Your task to perform on an android device: turn off smart reply in the gmail app Image 0: 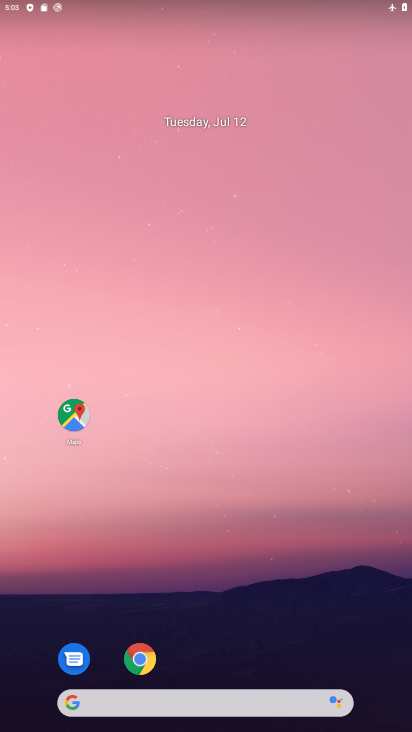
Step 0: drag from (384, 674) to (288, 140)
Your task to perform on an android device: turn off smart reply in the gmail app Image 1: 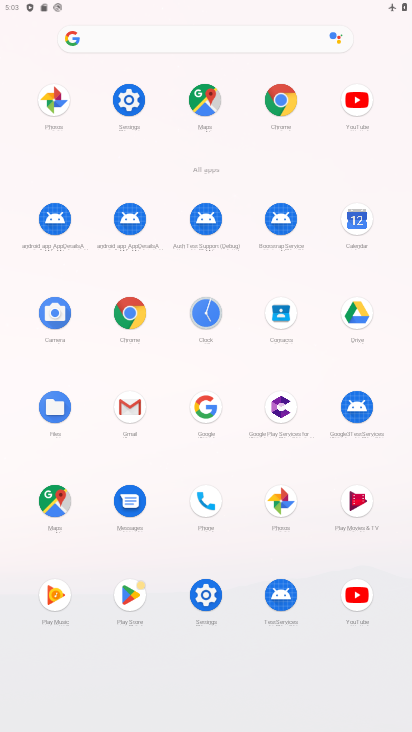
Step 1: click (129, 404)
Your task to perform on an android device: turn off smart reply in the gmail app Image 2: 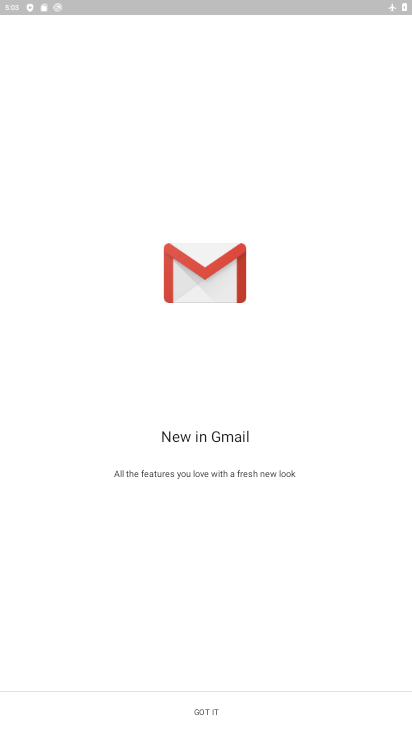
Step 2: click (202, 712)
Your task to perform on an android device: turn off smart reply in the gmail app Image 3: 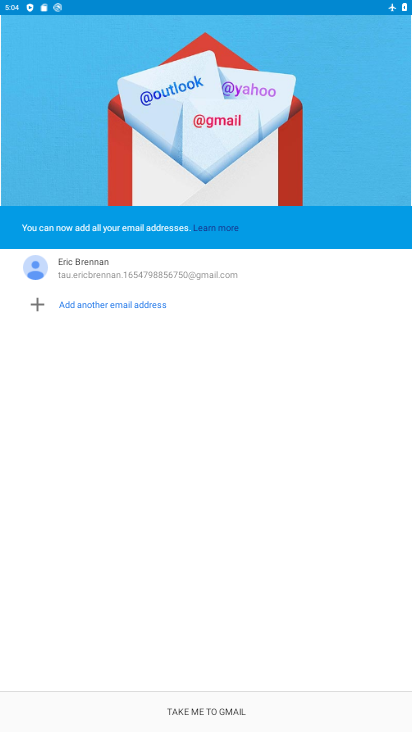
Step 3: click (215, 706)
Your task to perform on an android device: turn off smart reply in the gmail app Image 4: 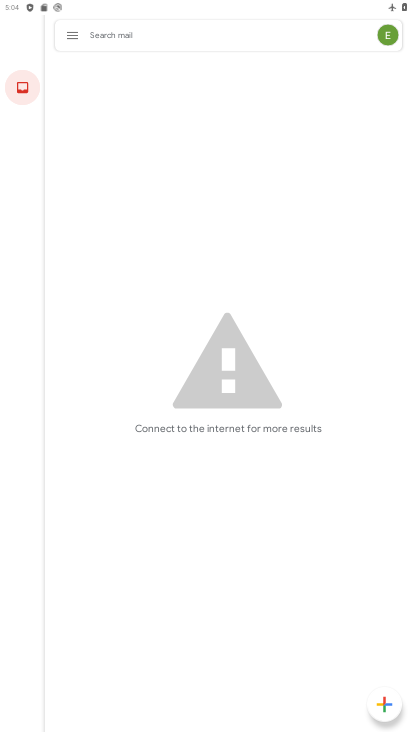
Step 4: click (68, 34)
Your task to perform on an android device: turn off smart reply in the gmail app Image 5: 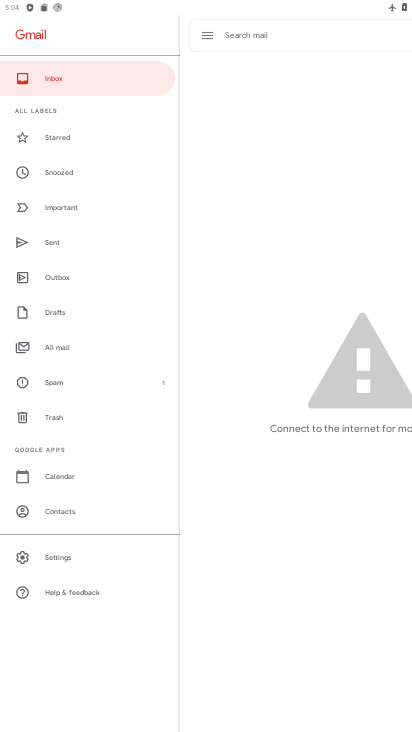
Step 5: click (55, 550)
Your task to perform on an android device: turn off smart reply in the gmail app Image 6: 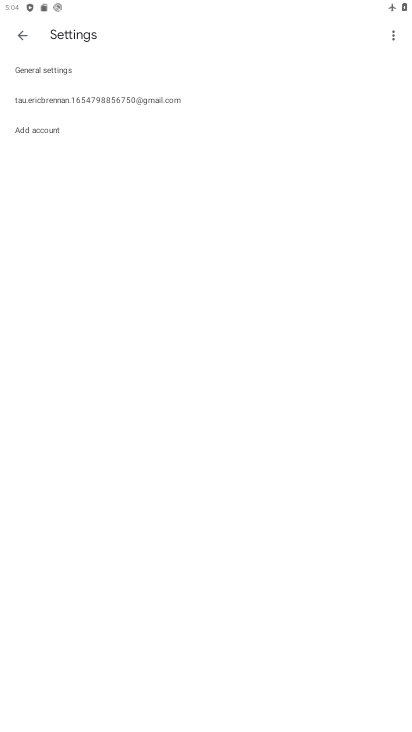
Step 6: click (76, 105)
Your task to perform on an android device: turn off smart reply in the gmail app Image 7: 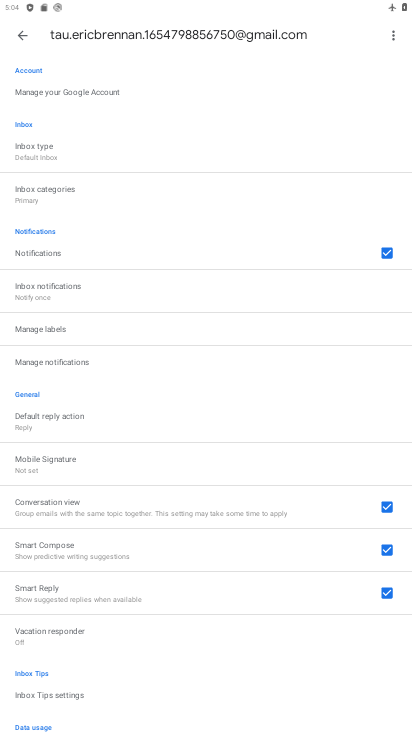
Step 7: click (385, 591)
Your task to perform on an android device: turn off smart reply in the gmail app Image 8: 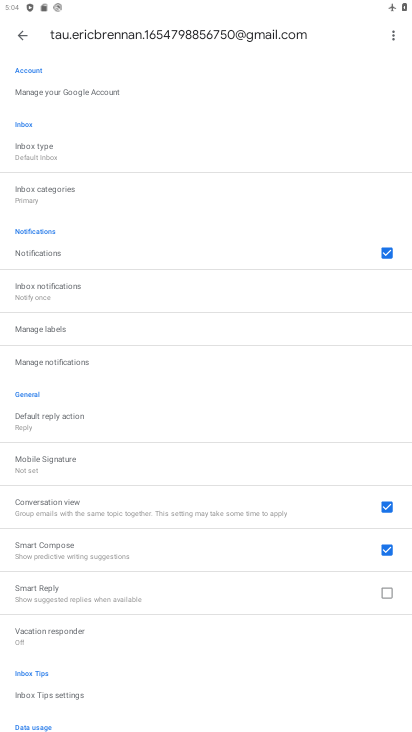
Step 8: task complete